Your task to perform on an android device: uninstall "Fetch Rewards" Image 0: 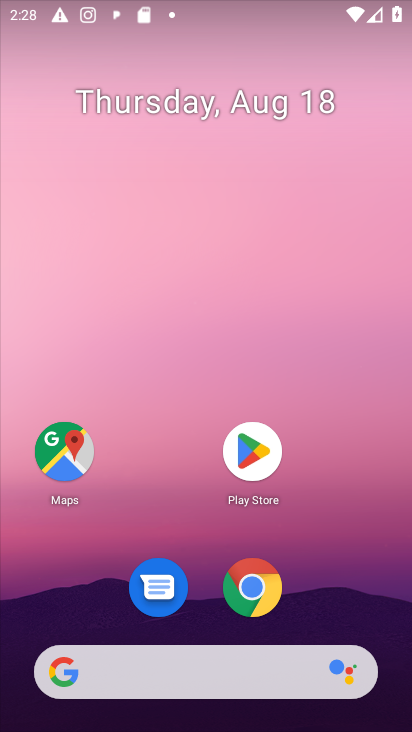
Step 0: press home button
Your task to perform on an android device: uninstall "Fetch Rewards" Image 1: 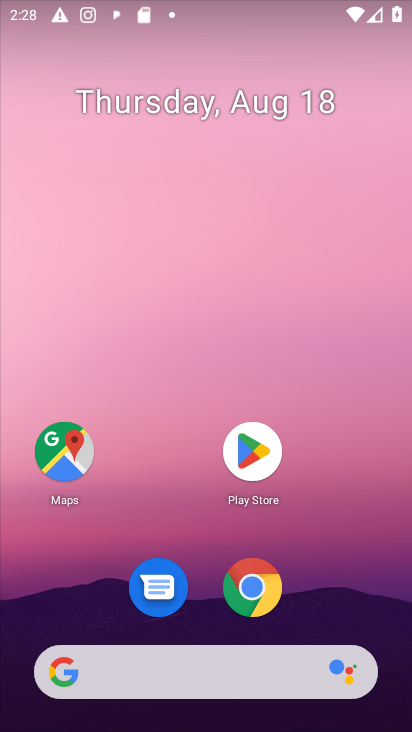
Step 1: click (241, 451)
Your task to perform on an android device: uninstall "Fetch Rewards" Image 2: 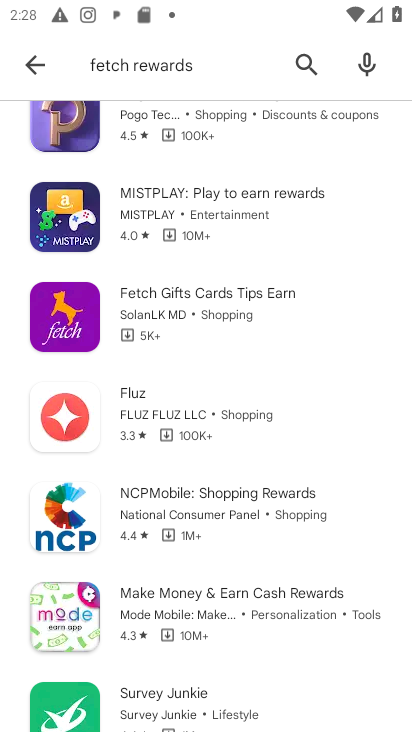
Step 2: task complete